Your task to perform on an android device: turn on airplane mode Image 0: 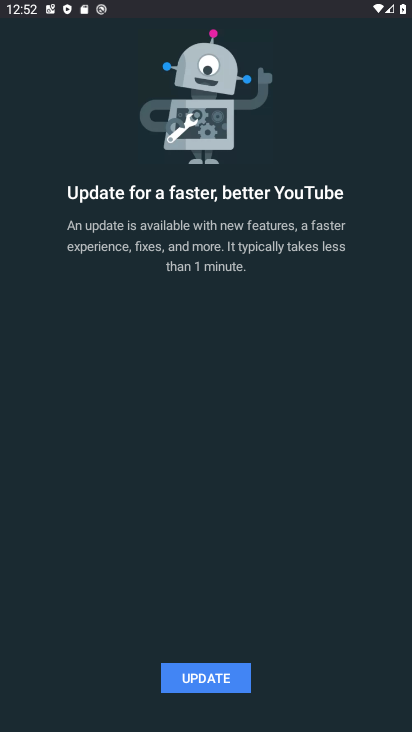
Step 0: press home button
Your task to perform on an android device: turn on airplane mode Image 1: 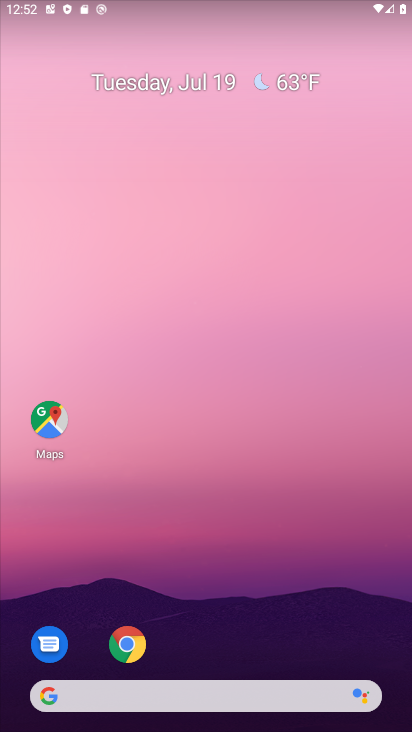
Step 1: drag from (223, 727) to (216, 148)
Your task to perform on an android device: turn on airplane mode Image 2: 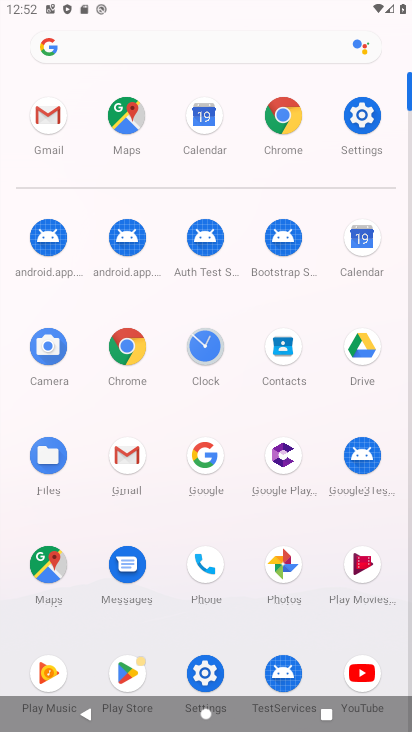
Step 2: click (361, 120)
Your task to perform on an android device: turn on airplane mode Image 3: 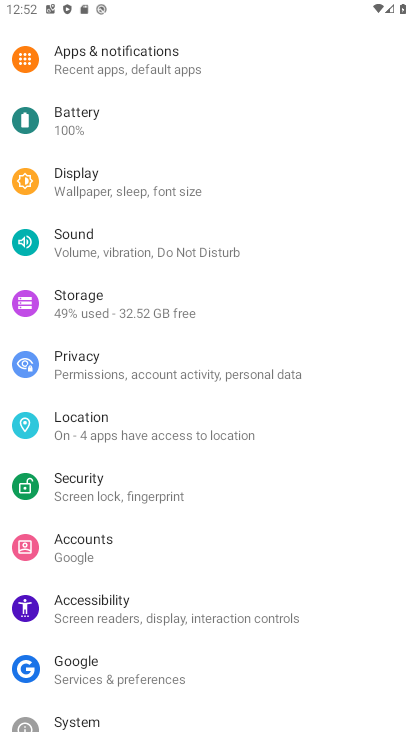
Step 3: drag from (103, 63) to (142, 474)
Your task to perform on an android device: turn on airplane mode Image 4: 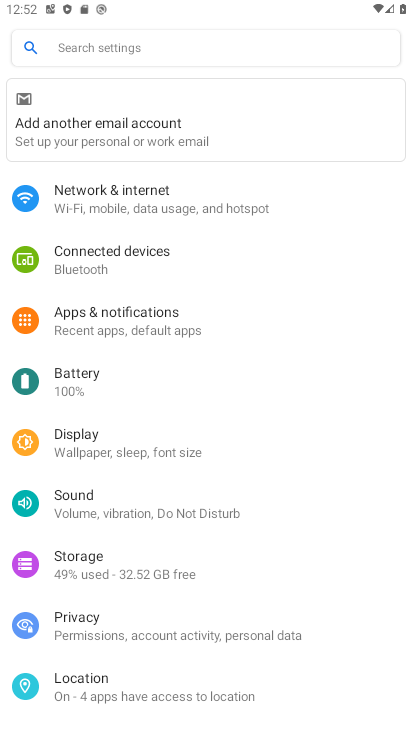
Step 4: click (100, 191)
Your task to perform on an android device: turn on airplane mode Image 5: 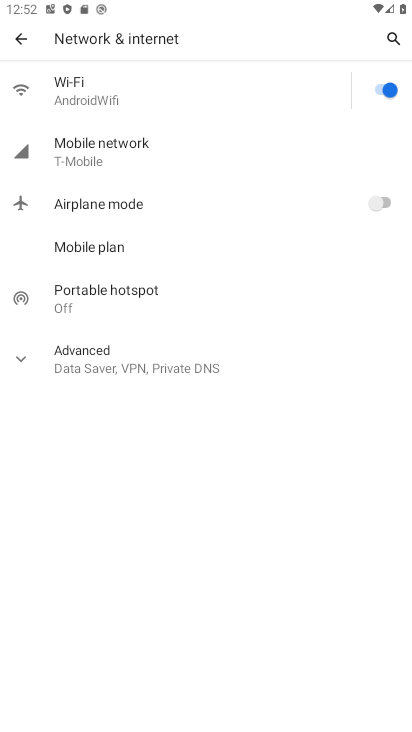
Step 5: click (387, 203)
Your task to perform on an android device: turn on airplane mode Image 6: 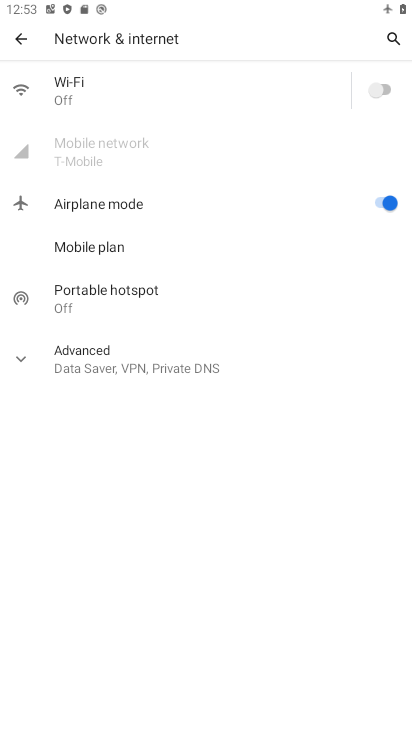
Step 6: task complete